Your task to perform on an android device: star an email in the gmail app Image 0: 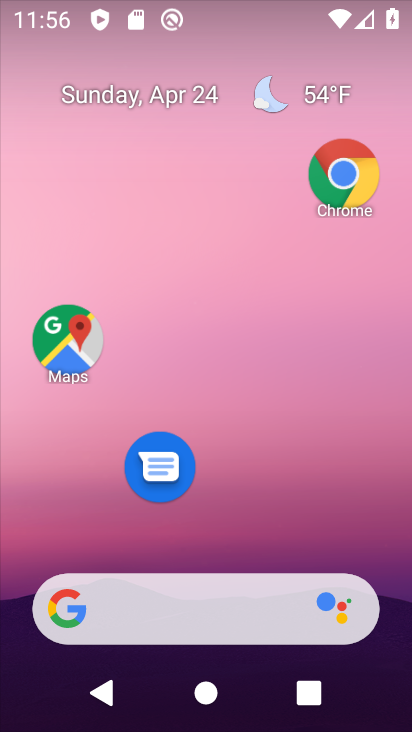
Step 0: drag from (179, 538) to (263, 155)
Your task to perform on an android device: star an email in the gmail app Image 1: 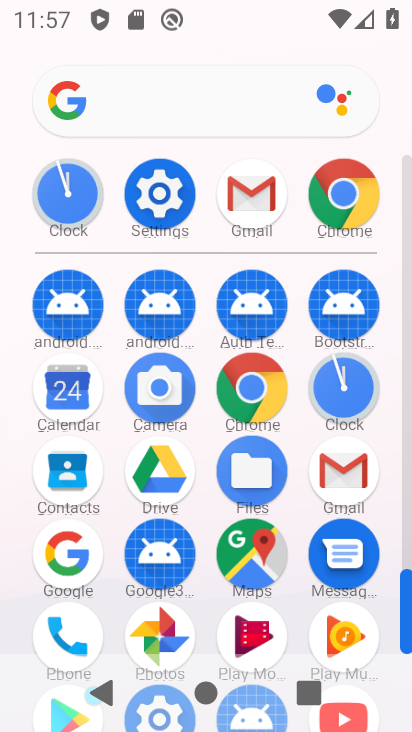
Step 1: click (343, 482)
Your task to perform on an android device: star an email in the gmail app Image 2: 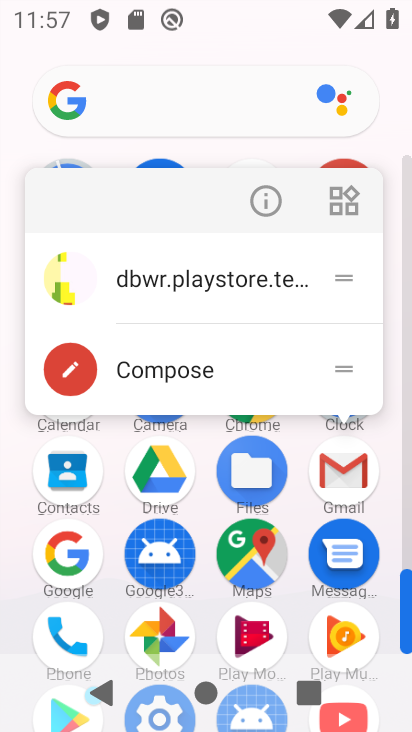
Step 2: click (267, 194)
Your task to perform on an android device: star an email in the gmail app Image 3: 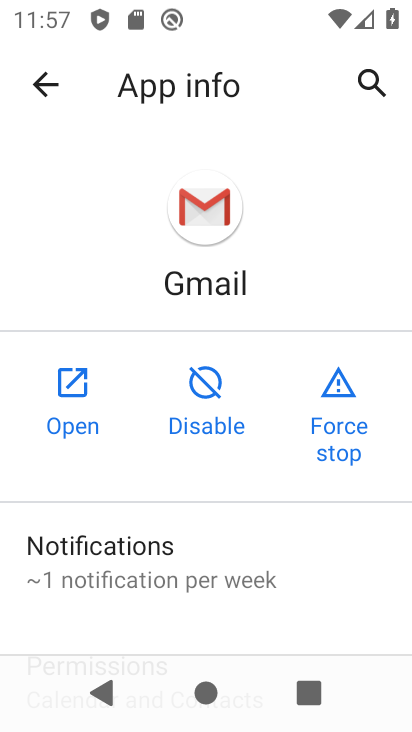
Step 3: click (62, 405)
Your task to perform on an android device: star an email in the gmail app Image 4: 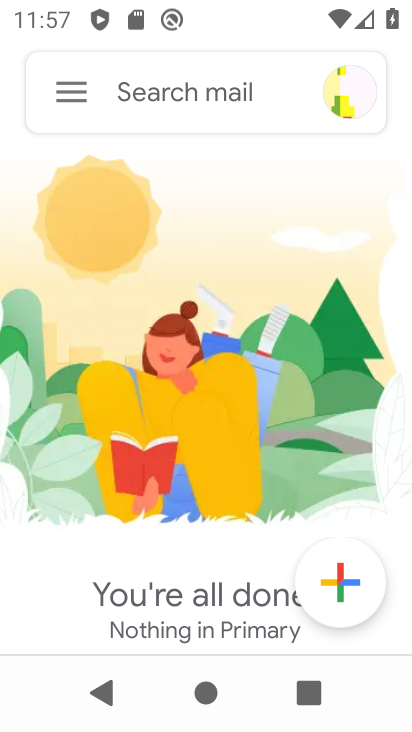
Step 4: drag from (141, 563) to (214, 295)
Your task to perform on an android device: star an email in the gmail app Image 5: 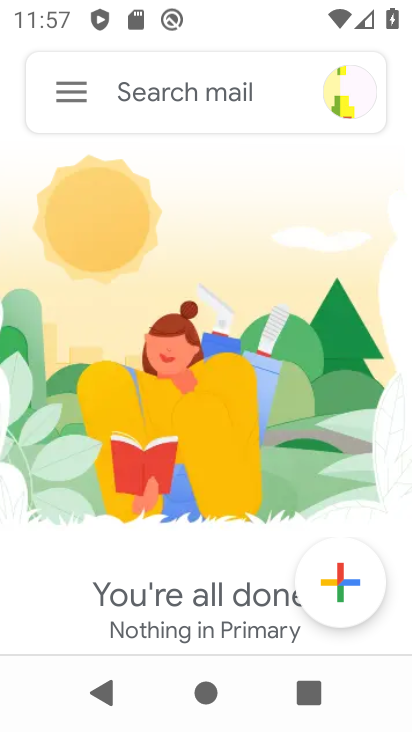
Step 5: click (70, 79)
Your task to perform on an android device: star an email in the gmail app Image 6: 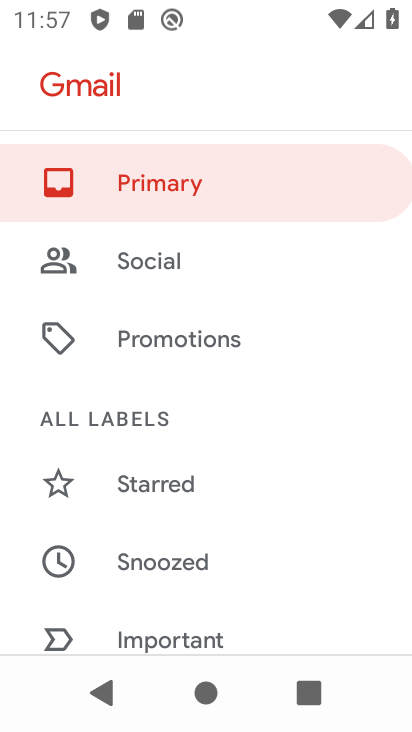
Step 6: drag from (173, 575) to (188, 72)
Your task to perform on an android device: star an email in the gmail app Image 7: 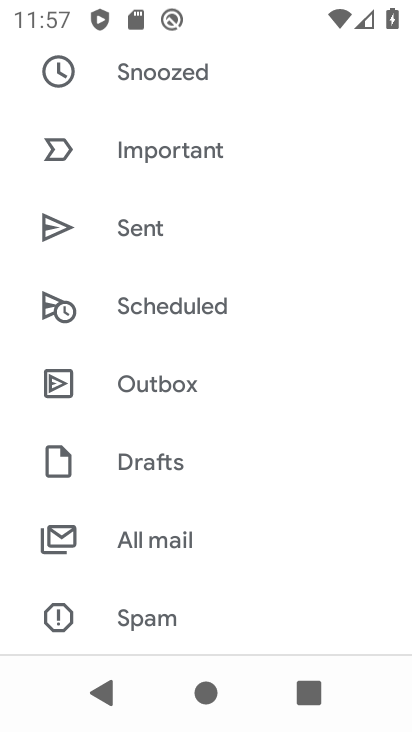
Step 7: drag from (220, 389) to (228, 231)
Your task to perform on an android device: star an email in the gmail app Image 8: 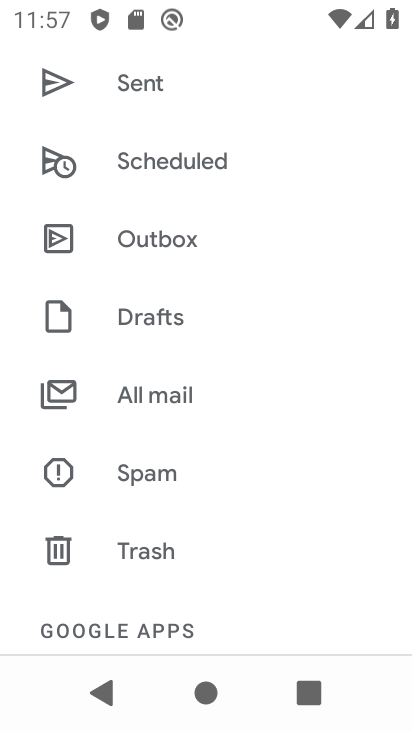
Step 8: drag from (130, 577) to (254, 97)
Your task to perform on an android device: star an email in the gmail app Image 9: 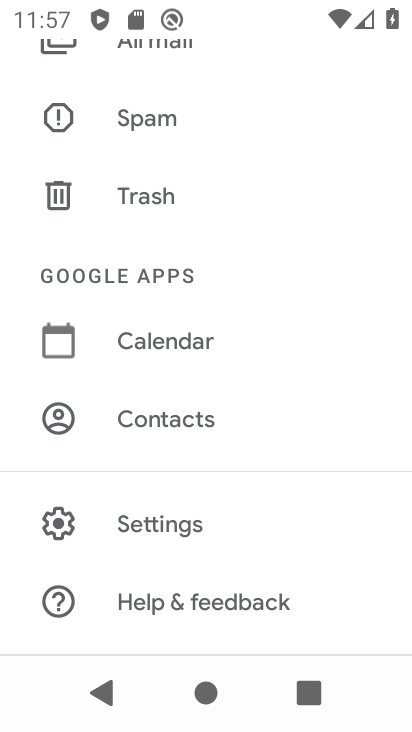
Step 9: click (170, 510)
Your task to perform on an android device: star an email in the gmail app Image 10: 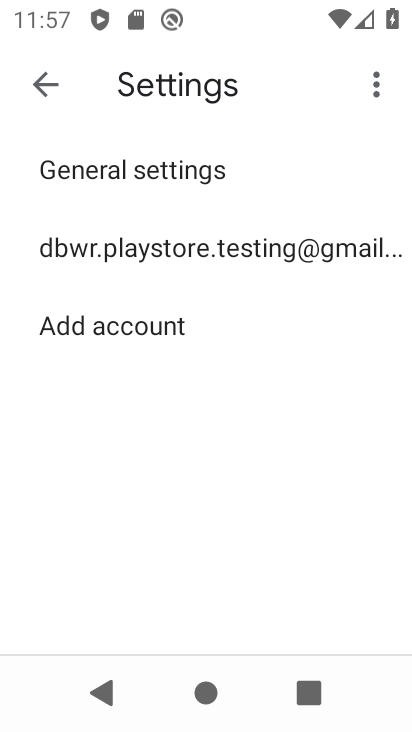
Step 10: click (185, 258)
Your task to perform on an android device: star an email in the gmail app Image 11: 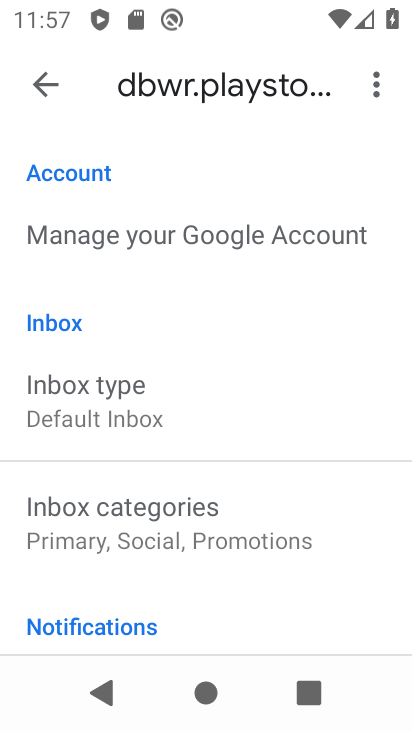
Step 11: click (41, 107)
Your task to perform on an android device: star an email in the gmail app Image 12: 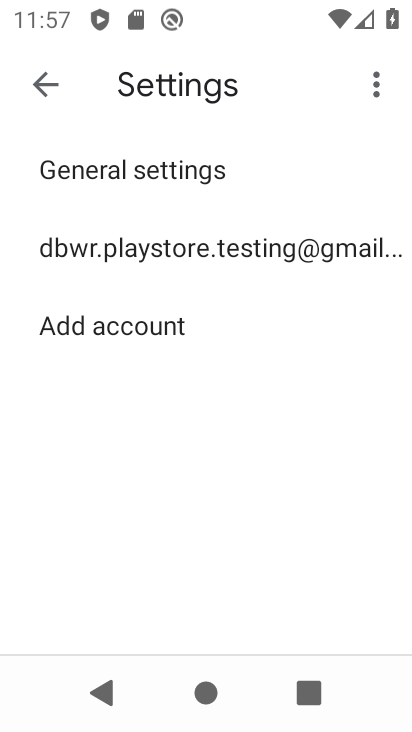
Step 12: click (39, 93)
Your task to perform on an android device: star an email in the gmail app Image 13: 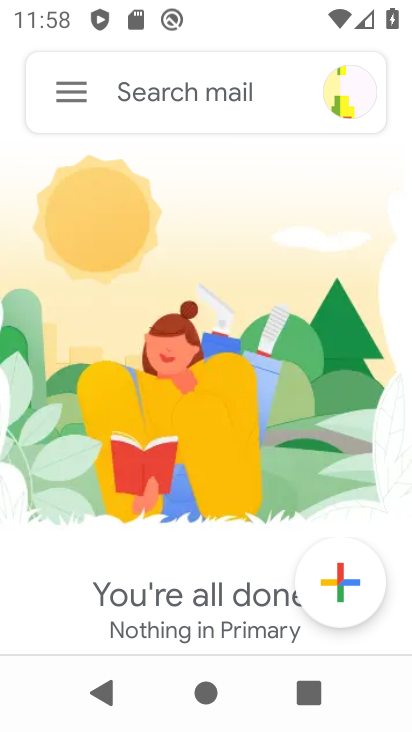
Step 13: task complete